Your task to perform on an android device: find photos in the google photos app Image 0: 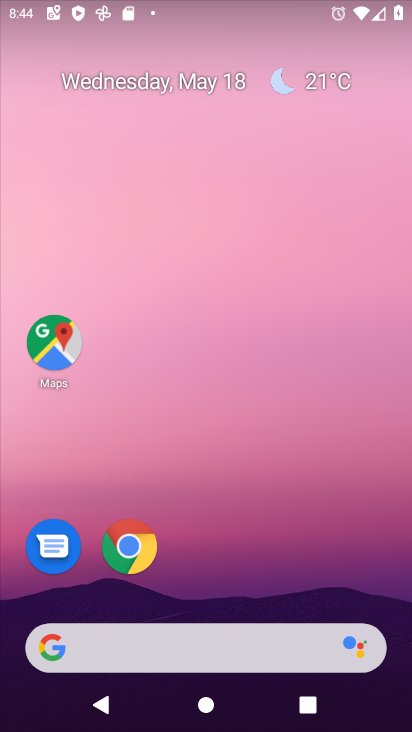
Step 0: drag from (388, 632) to (293, 27)
Your task to perform on an android device: find photos in the google photos app Image 1: 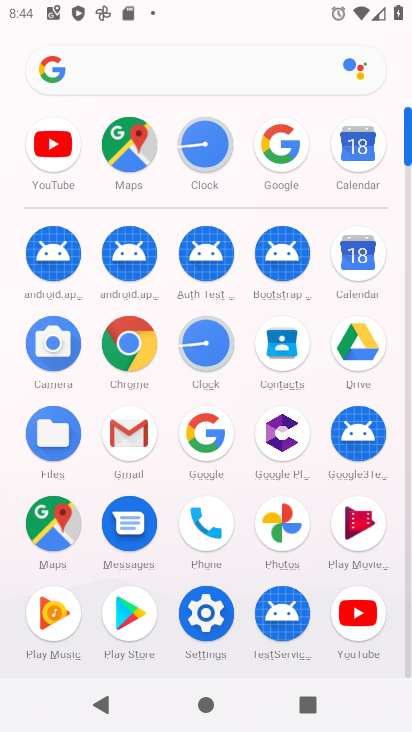
Step 1: click (275, 537)
Your task to perform on an android device: find photos in the google photos app Image 2: 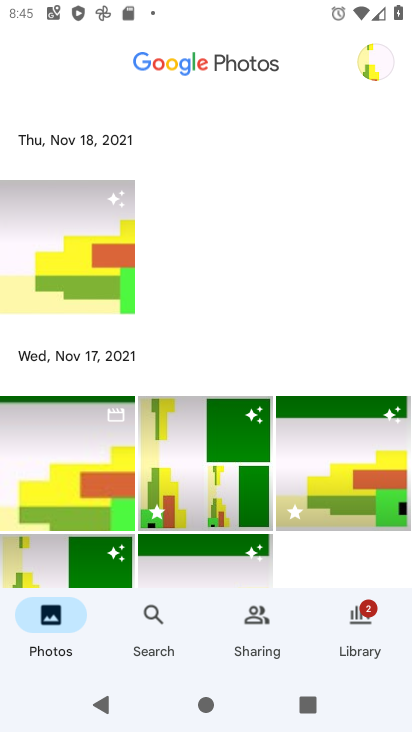
Step 2: task complete